Your task to perform on an android device: Toggle the flashlight Image 0: 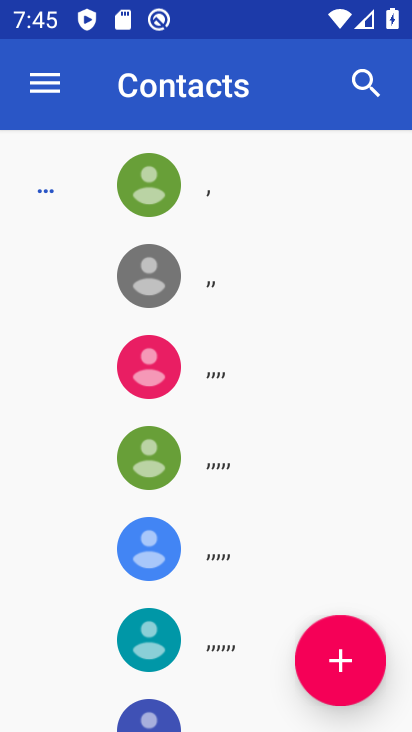
Step 0: press back button
Your task to perform on an android device: Toggle the flashlight Image 1: 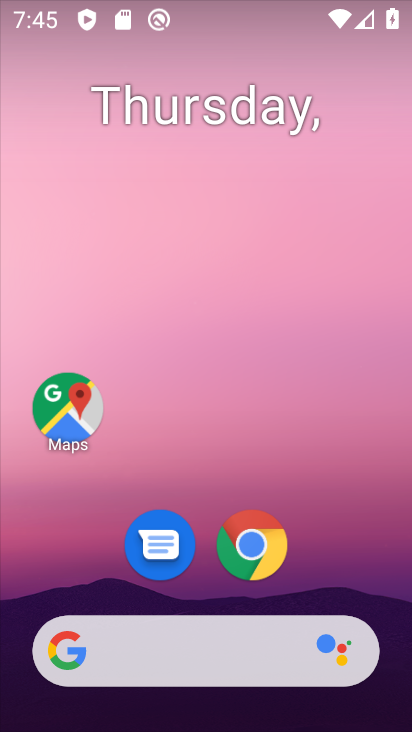
Step 1: drag from (337, 545) to (270, 107)
Your task to perform on an android device: Toggle the flashlight Image 2: 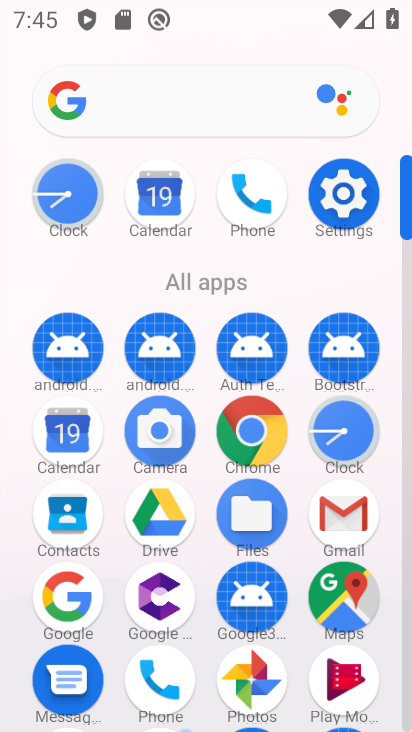
Step 2: click (344, 194)
Your task to perform on an android device: Toggle the flashlight Image 3: 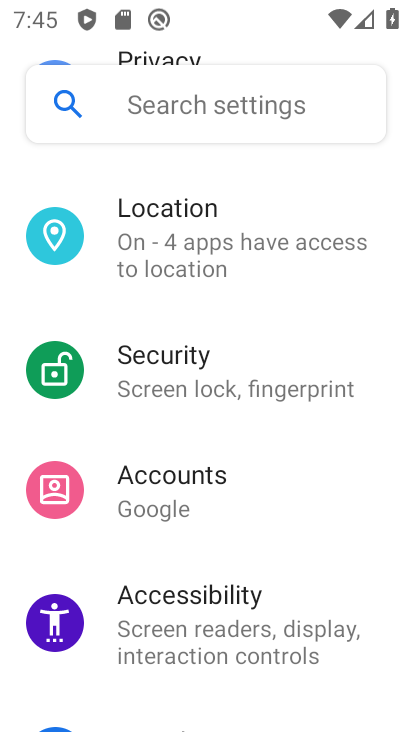
Step 3: drag from (295, 301) to (310, 382)
Your task to perform on an android device: Toggle the flashlight Image 4: 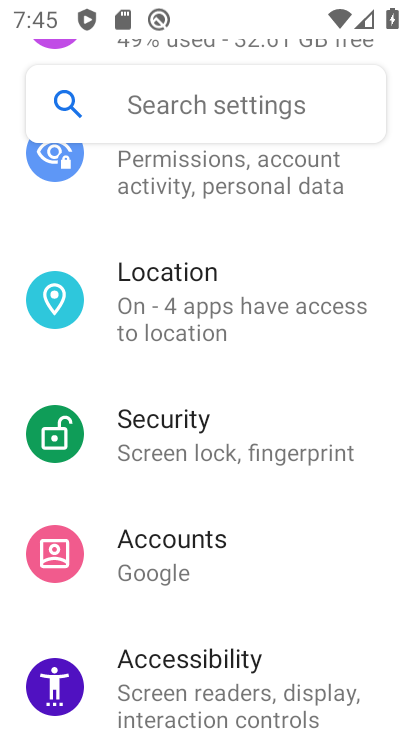
Step 4: drag from (265, 255) to (292, 431)
Your task to perform on an android device: Toggle the flashlight Image 5: 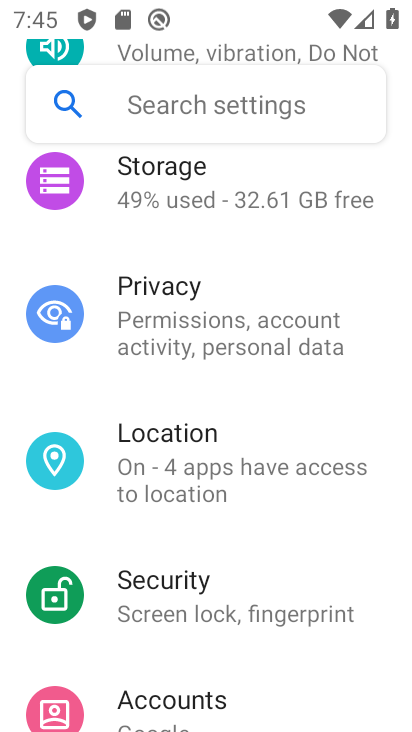
Step 5: drag from (238, 273) to (281, 385)
Your task to perform on an android device: Toggle the flashlight Image 6: 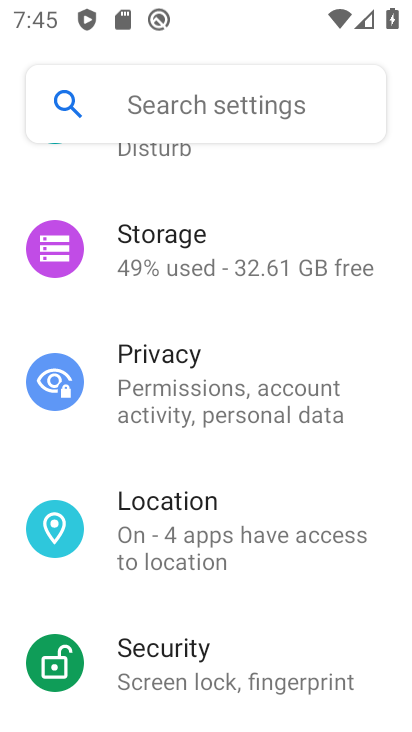
Step 6: drag from (269, 312) to (285, 442)
Your task to perform on an android device: Toggle the flashlight Image 7: 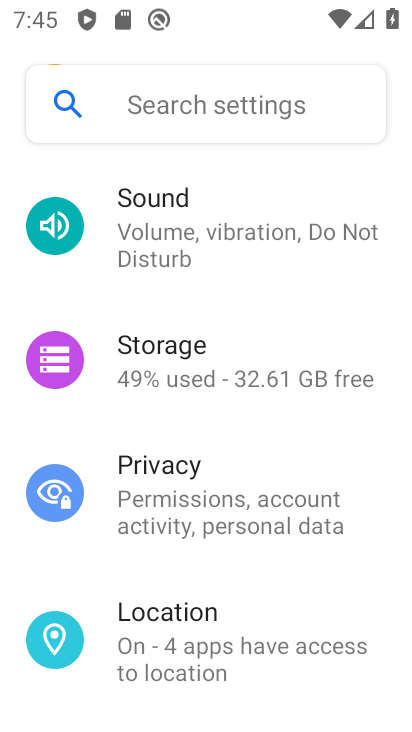
Step 7: drag from (221, 301) to (278, 391)
Your task to perform on an android device: Toggle the flashlight Image 8: 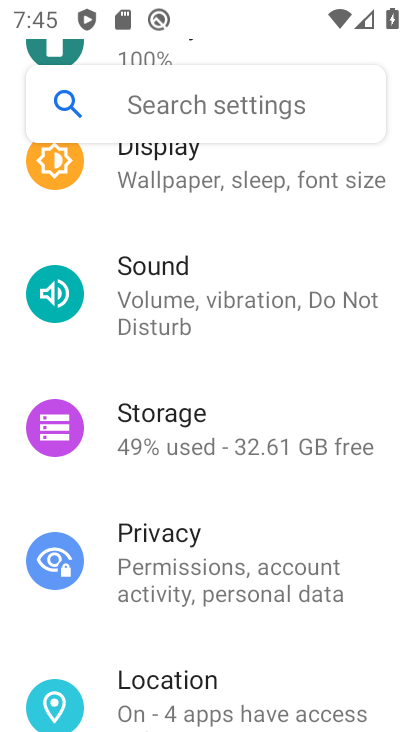
Step 8: click (206, 304)
Your task to perform on an android device: Toggle the flashlight Image 9: 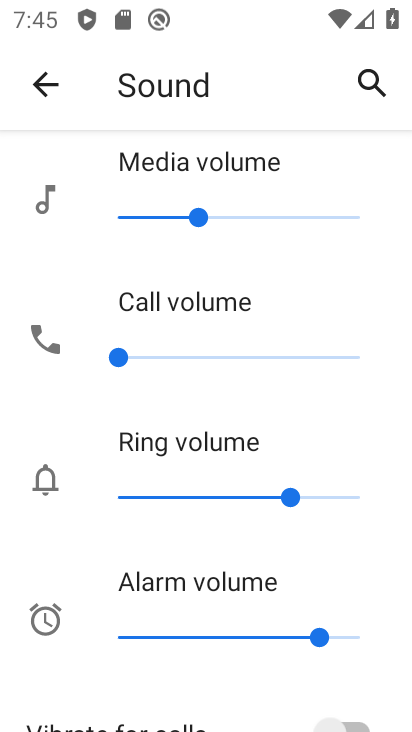
Step 9: drag from (235, 465) to (243, 378)
Your task to perform on an android device: Toggle the flashlight Image 10: 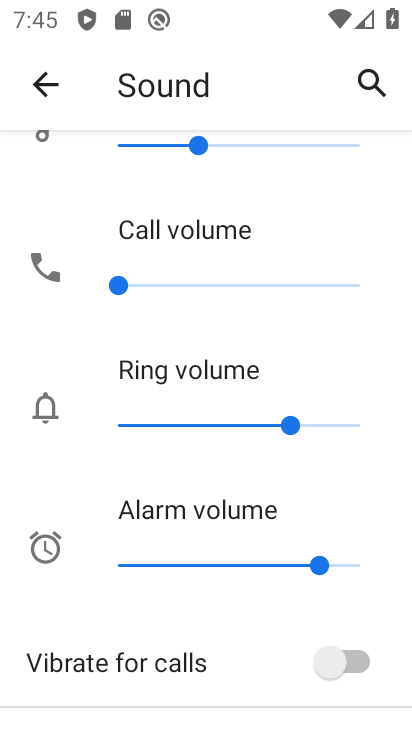
Step 10: drag from (183, 552) to (207, 420)
Your task to perform on an android device: Toggle the flashlight Image 11: 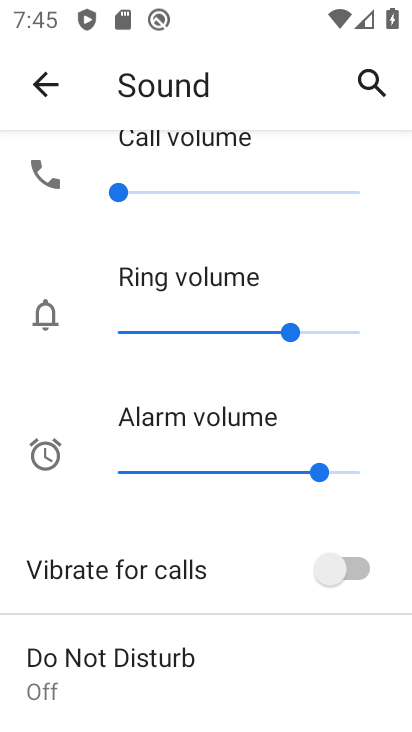
Step 11: drag from (196, 568) to (220, 414)
Your task to perform on an android device: Toggle the flashlight Image 12: 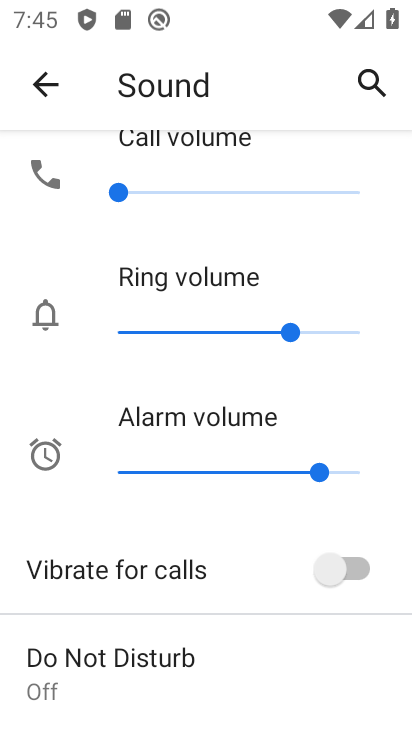
Step 12: drag from (234, 656) to (247, 359)
Your task to perform on an android device: Toggle the flashlight Image 13: 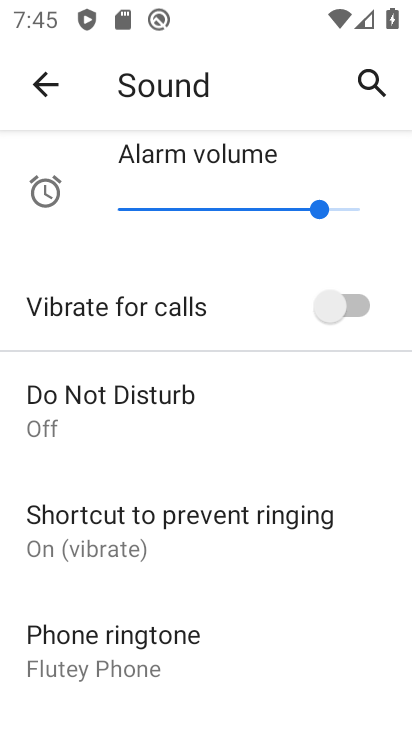
Step 13: click (44, 84)
Your task to perform on an android device: Toggle the flashlight Image 14: 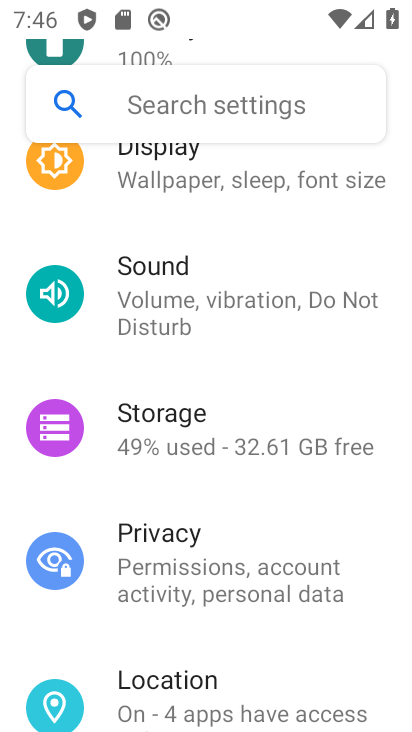
Step 14: drag from (275, 237) to (313, 377)
Your task to perform on an android device: Toggle the flashlight Image 15: 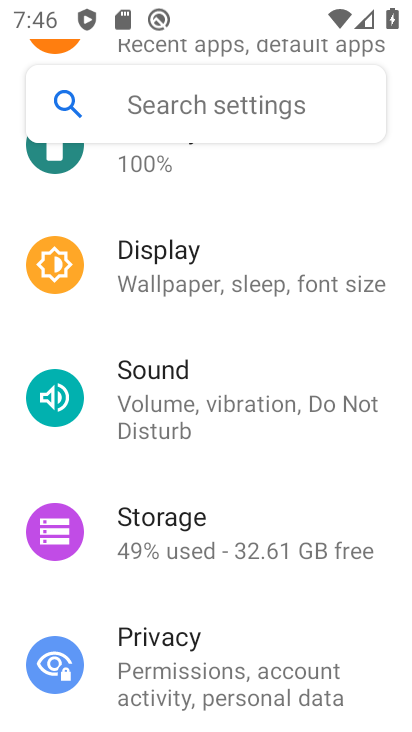
Step 15: click (267, 281)
Your task to perform on an android device: Toggle the flashlight Image 16: 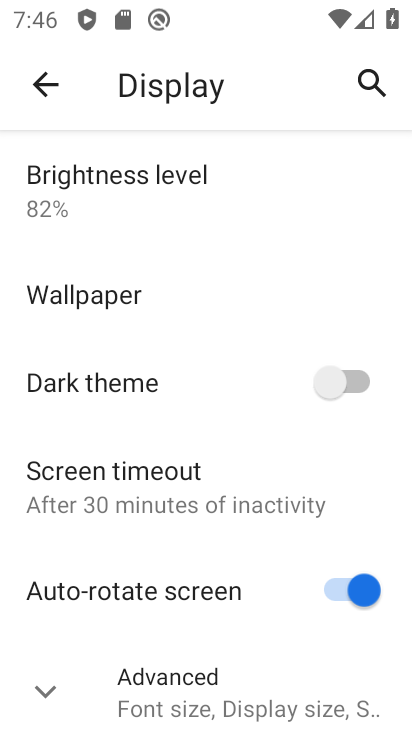
Step 16: drag from (198, 523) to (167, 415)
Your task to perform on an android device: Toggle the flashlight Image 17: 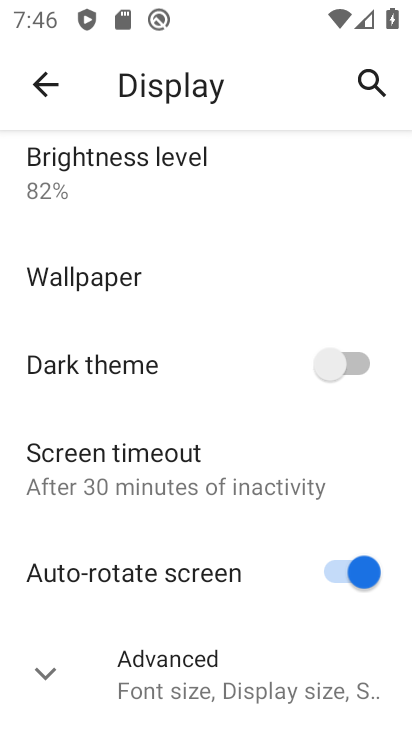
Step 17: drag from (132, 616) to (129, 457)
Your task to perform on an android device: Toggle the flashlight Image 18: 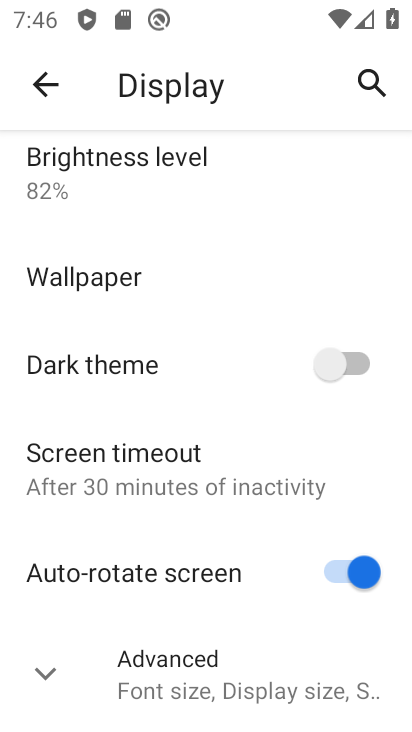
Step 18: click (210, 665)
Your task to perform on an android device: Toggle the flashlight Image 19: 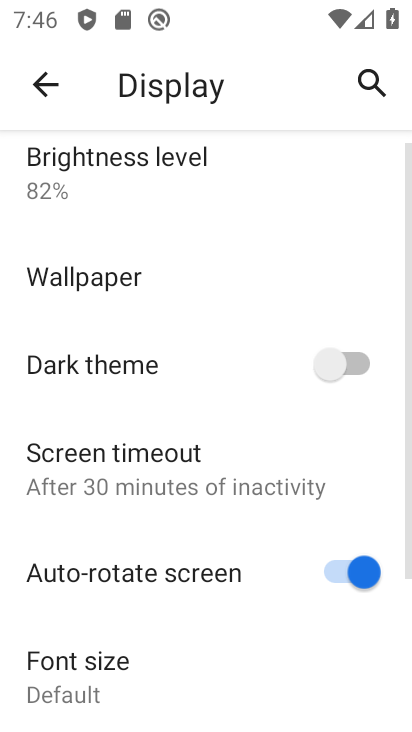
Step 19: drag from (129, 548) to (168, 429)
Your task to perform on an android device: Toggle the flashlight Image 20: 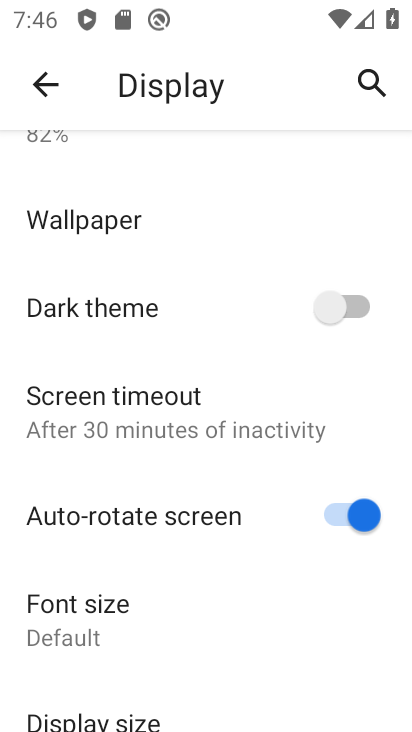
Step 20: drag from (185, 552) to (242, 426)
Your task to perform on an android device: Toggle the flashlight Image 21: 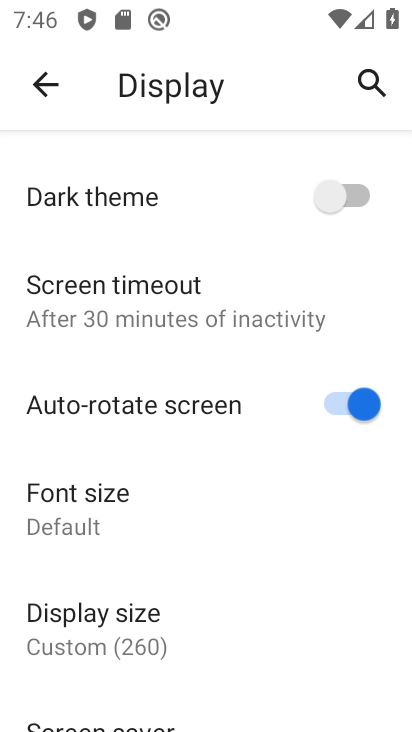
Step 21: drag from (150, 465) to (186, 386)
Your task to perform on an android device: Toggle the flashlight Image 22: 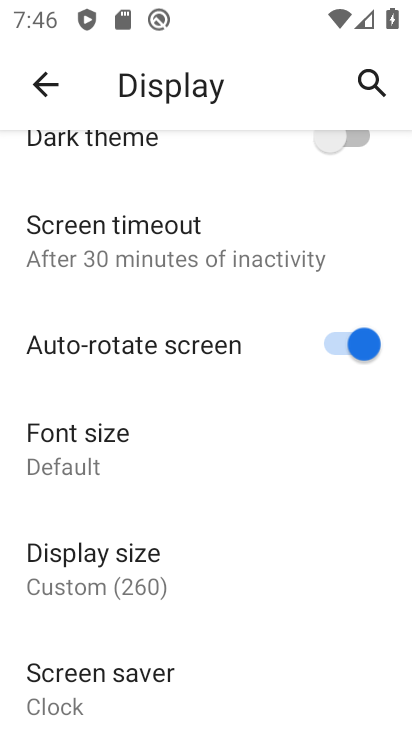
Step 22: drag from (157, 496) to (198, 416)
Your task to perform on an android device: Toggle the flashlight Image 23: 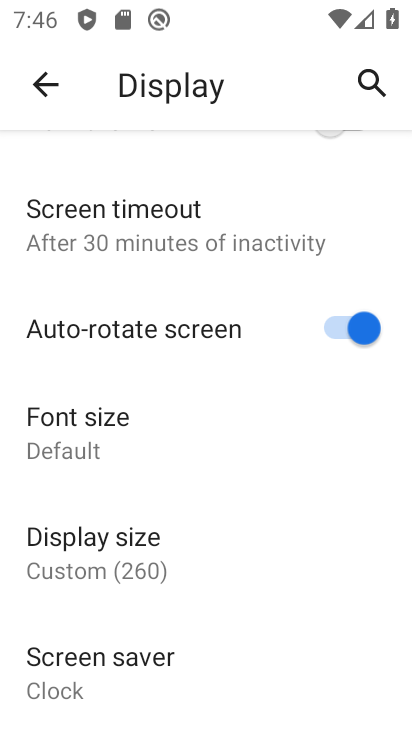
Step 23: drag from (128, 606) to (153, 523)
Your task to perform on an android device: Toggle the flashlight Image 24: 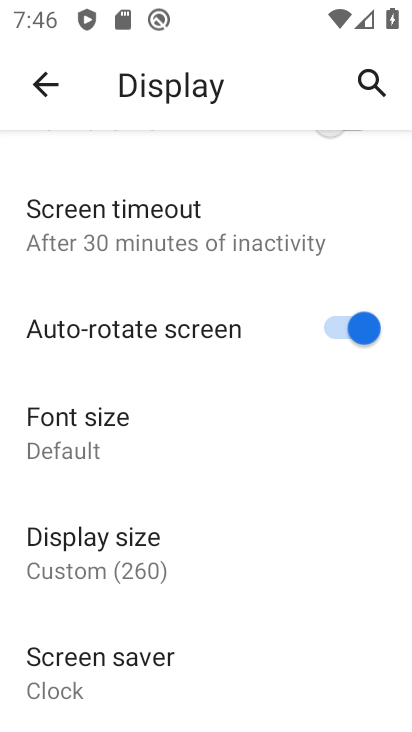
Step 24: click (132, 658)
Your task to perform on an android device: Toggle the flashlight Image 25: 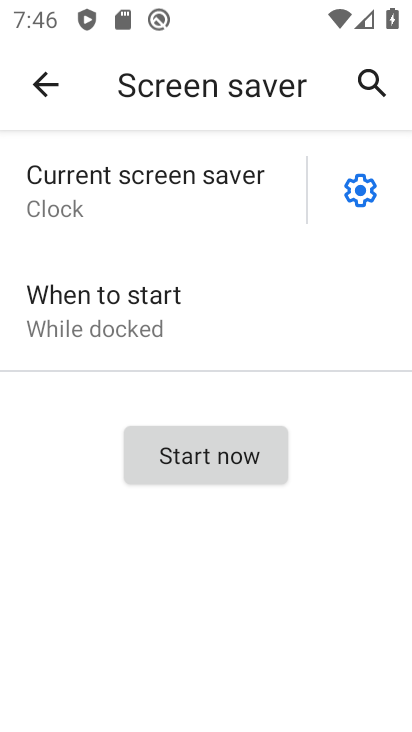
Step 25: press back button
Your task to perform on an android device: Toggle the flashlight Image 26: 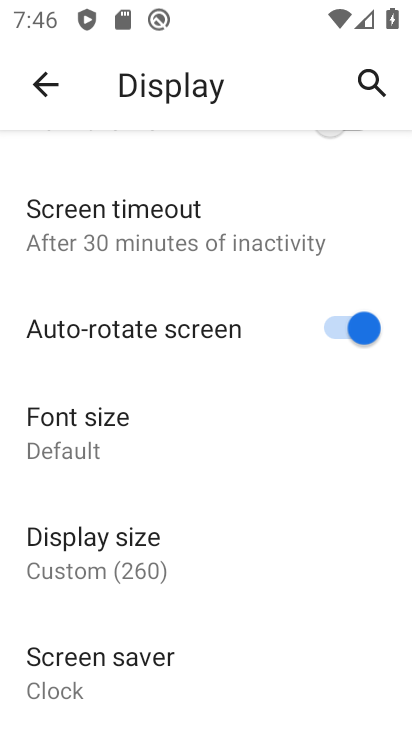
Step 26: press back button
Your task to perform on an android device: Toggle the flashlight Image 27: 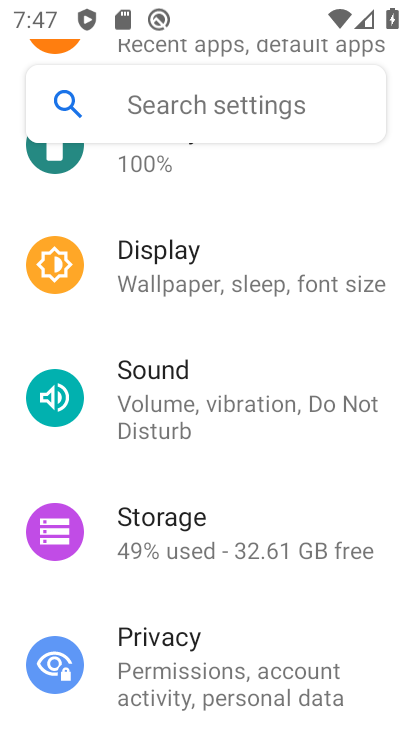
Step 27: drag from (270, 169) to (220, 288)
Your task to perform on an android device: Toggle the flashlight Image 28: 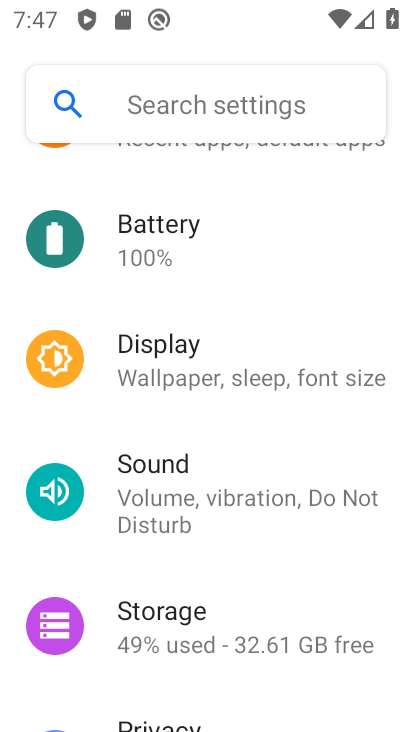
Step 28: drag from (232, 207) to (222, 313)
Your task to perform on an android device: Toggle the flashlight Image 29: 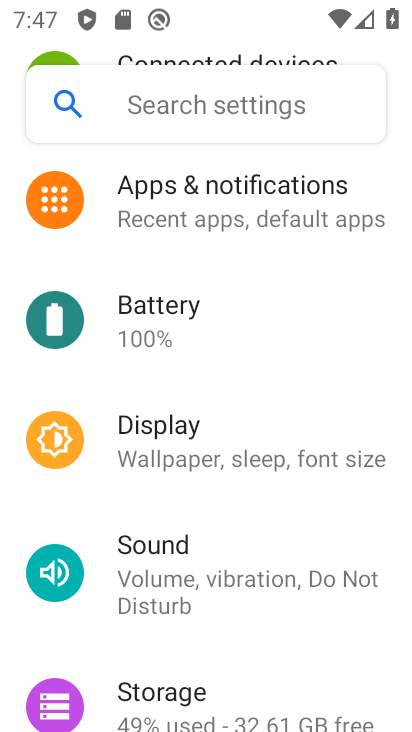
Step 29: drag from (233, 253) to (266, 322)
Your task to perform on an android device: Toggle the flashlight Image 30: 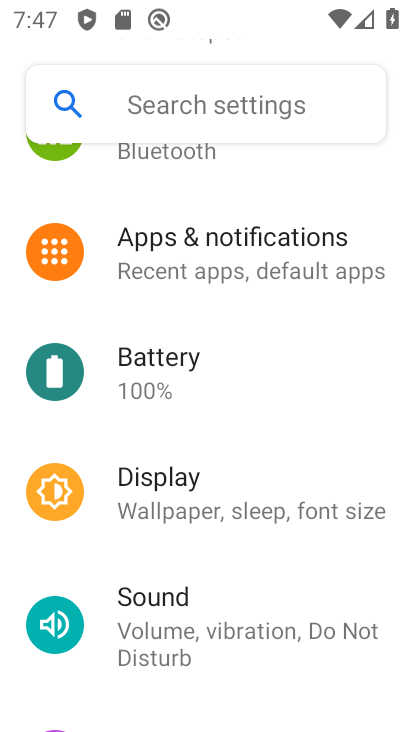
Step 30: click (281, 240)
Your task to perform on an android device: Toggle the flashlight Image 31: 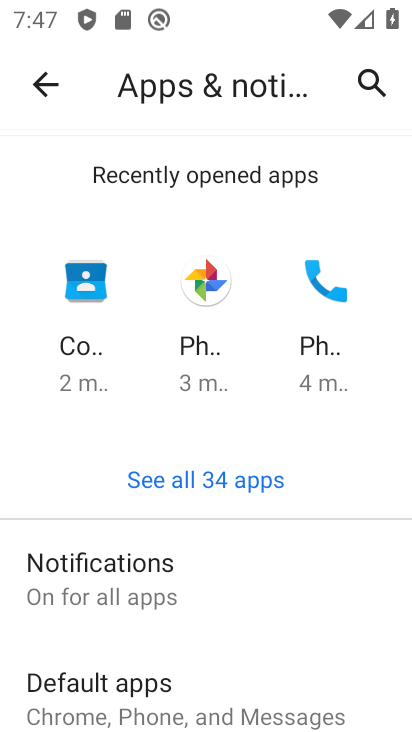
Step 31: drag from (265, 560) to (327, 479)
Your task to perform on an android device: Toggle the flashlight Image 32: 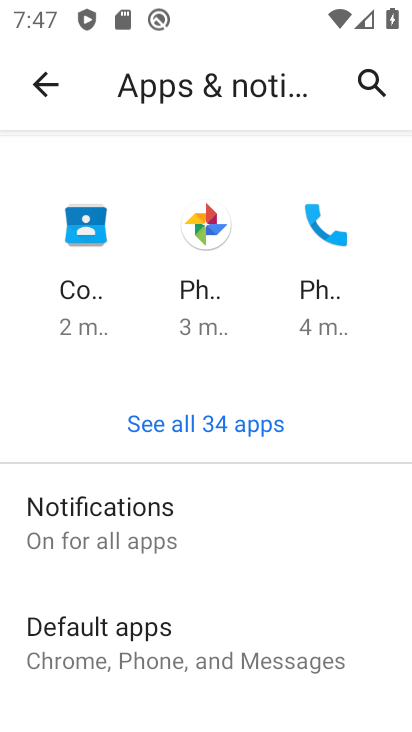
Step 32: drag from (228, 580) to (303, 488)
Your task to perform on an android device: Toggle the flashlight Image 33: 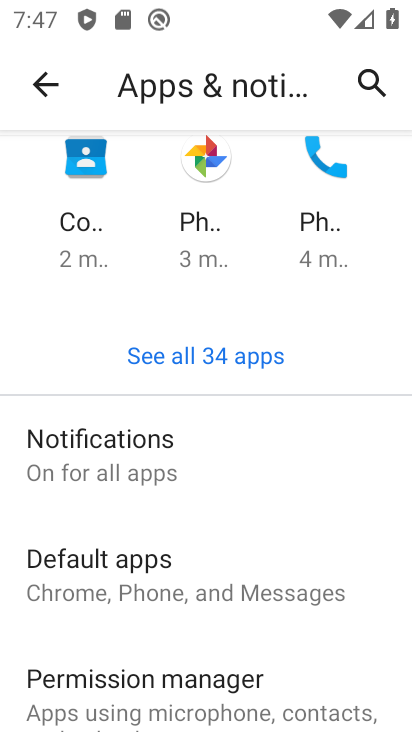
Step 33: drag from (223, 636) to (296, 515)
Your task to perform on an android device: Toggle the flashlight Image 34: 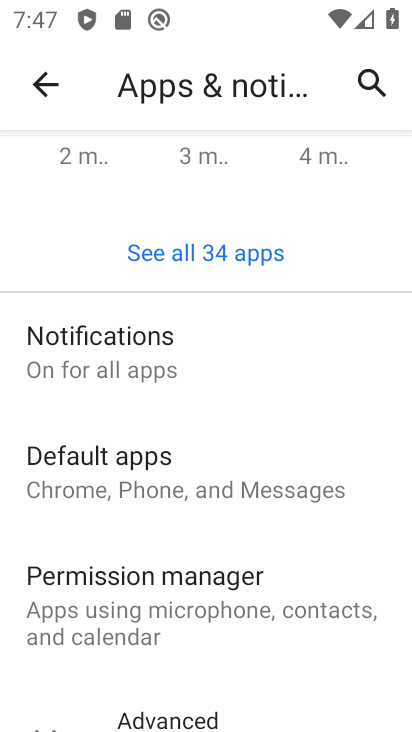
Step 34: drag from (205, 665) to (277, 518)
Your task to perform on an android device: Toggle the flashlight Image 35: 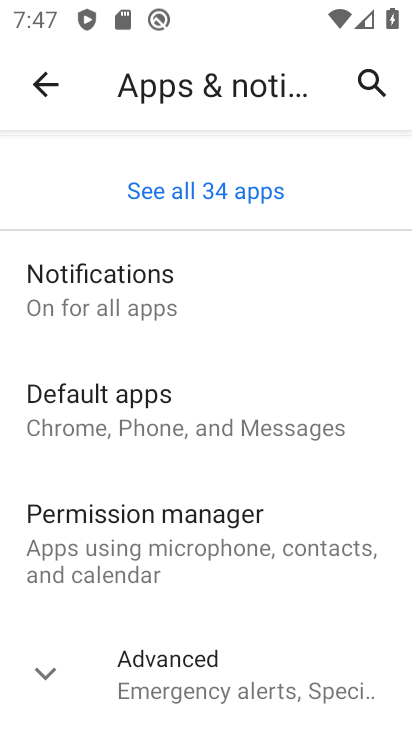
Step 35: click (218, 676)
Your task to perform on an android device: Toggle the flashlight Image 36: 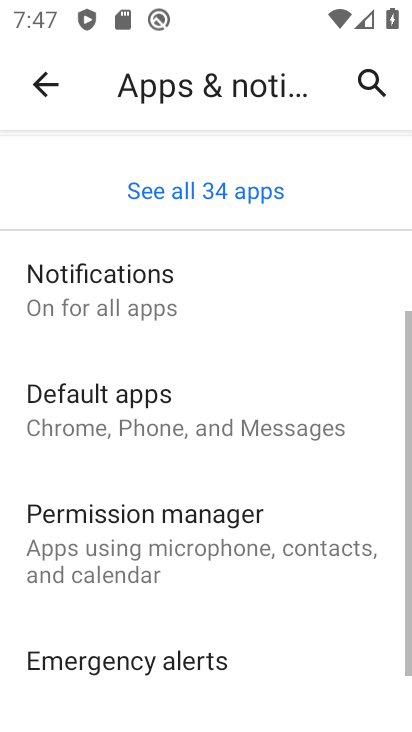
Step 36: task complete